Your task to perform on an android device: check out phone information Image 0: 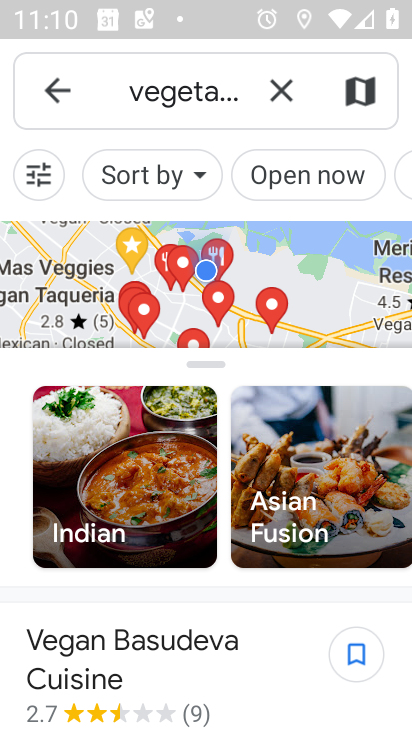
Step 0: press home button
Your task to perform on an android device: check out phone information Image 1: 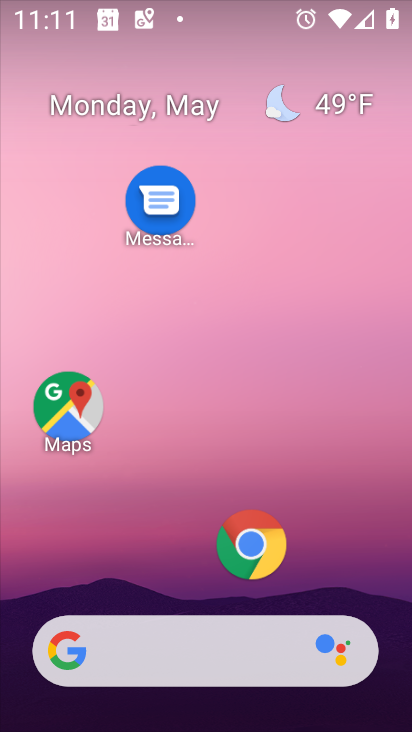
Step 1: drag from (161, 588) to (243, 65)
Your task to perform on an android device: check out phone information Image 2: 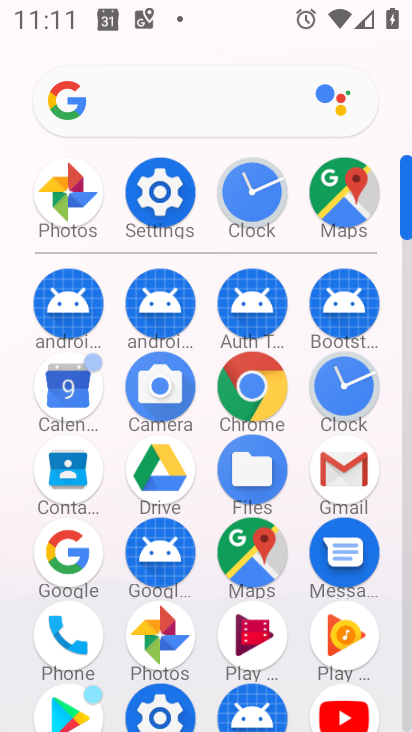
Step 2: click (158, 181)
Your task to perform on an android device: check out phone information Image 3: 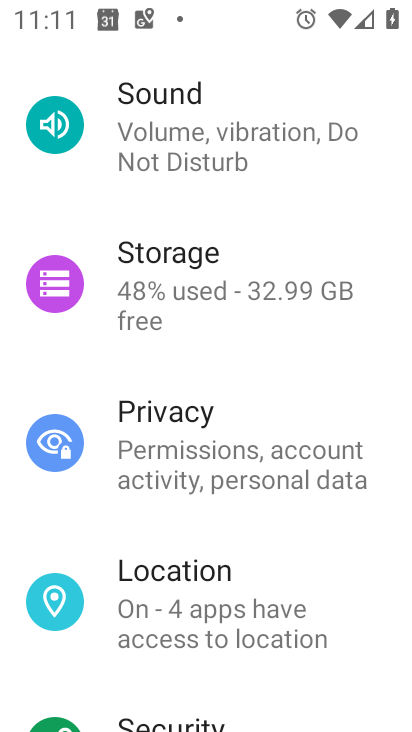
Step 3: drag from (150, 555) to (157, 244)
Your task to perform on an android device: check out phone information Image 4: 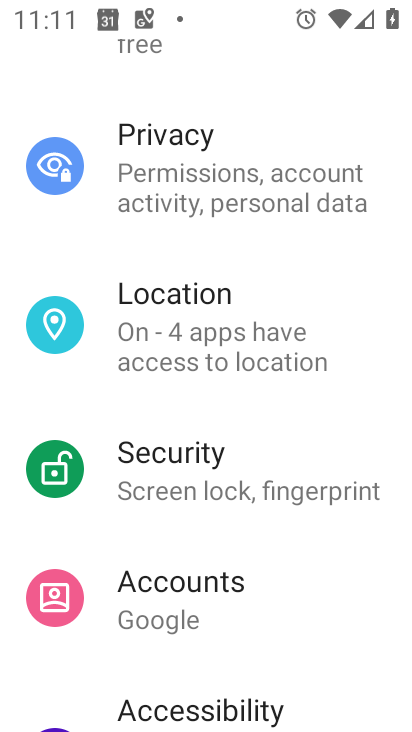
Step 4: drag from (167, 535) to (198, 236)
Your task to perform on an android device: check out phone information Image 5: 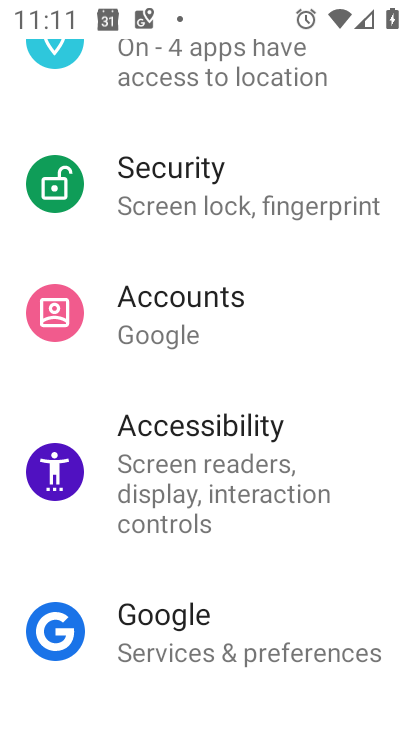
Step 5: drag from (237, 585) to (248, 349)
Your task to perform on an android device: check out phone information Image 6: 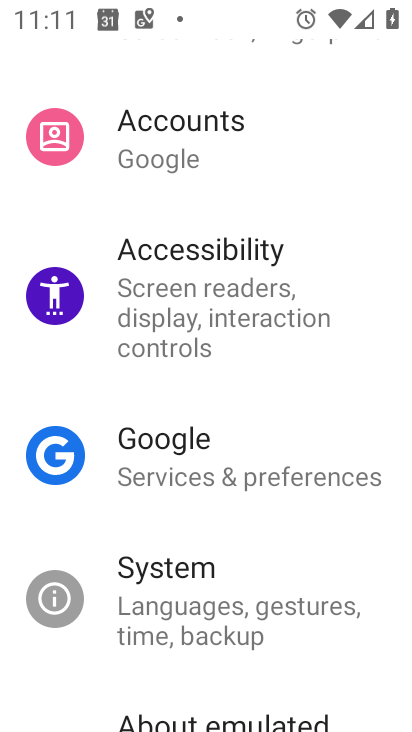
Step 6: drag from (274, 623) to (266, 378)
Your task to perform on an android device: check out phone information Image 7: 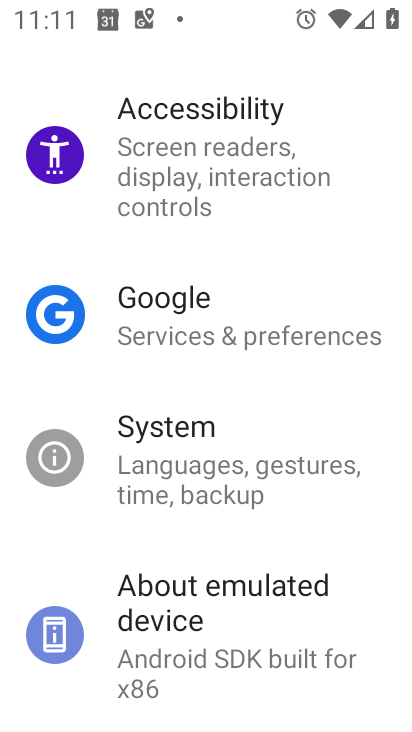
Step 7: click (234, 616)
Your task to perform on an android device: check out phone information Image 8: 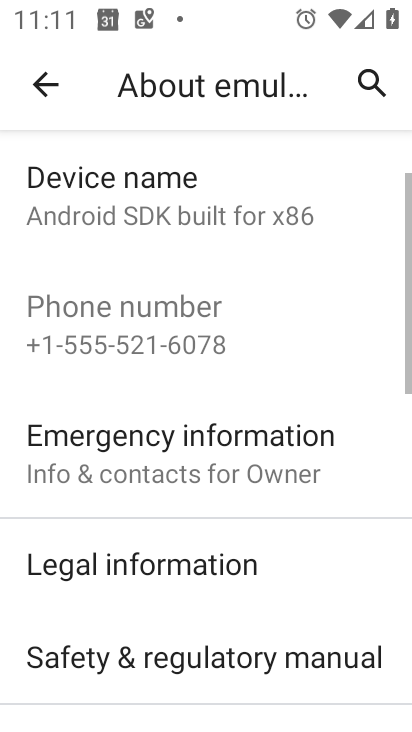
Step 8: task complete